Your task to perform on an android device: Open Yahoo.com Image 0: 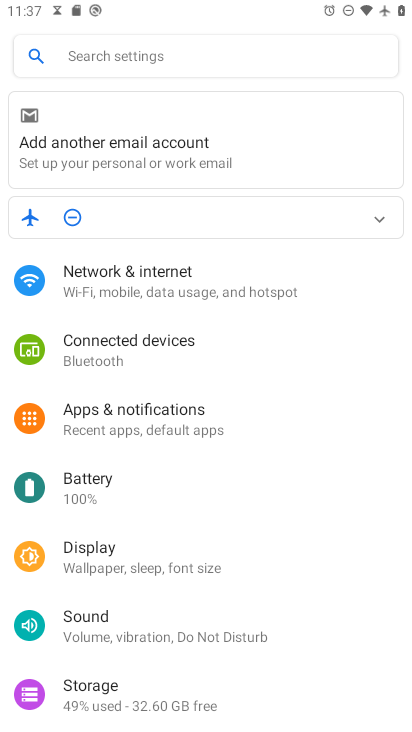
Step 0: press home button
Your task to perform on an android device: Open Yahoo.com Image 1: 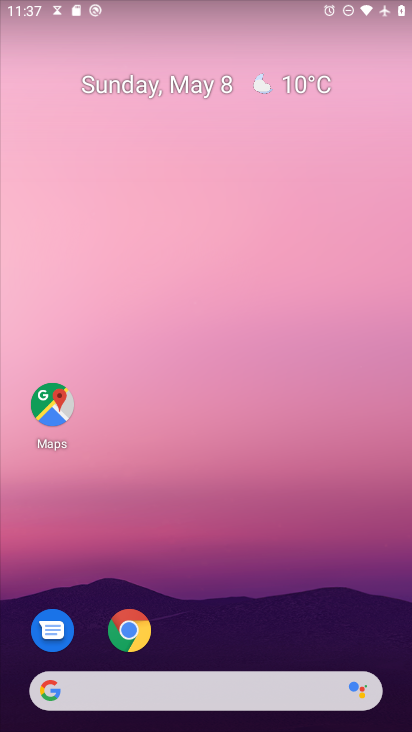
Step 1: drag from (178, 691) to (318, 20)
Your task to perform on an android device: Open Yahoo.com Image 2: 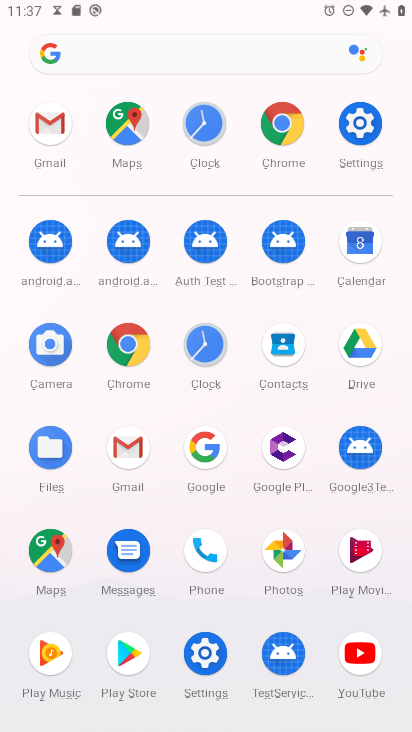
Step 2: click (293, 123)
Your task to perform on an android device: Open Yahoo.com Image 3: 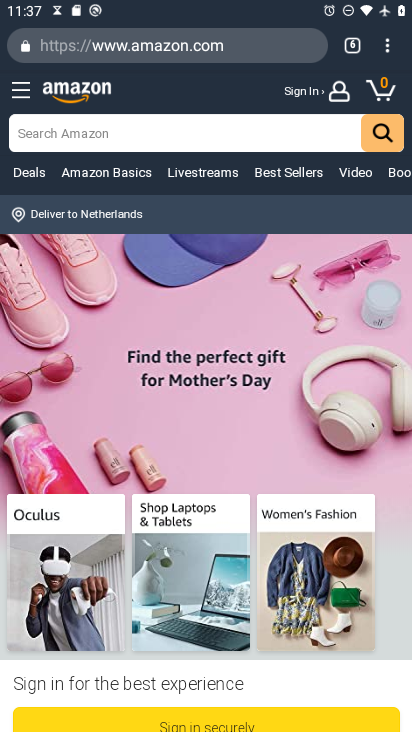
Step 3: drag from (388, 51) to (278, 93)
Your task to perform on an android device: Open Yahoo.com Image 4: 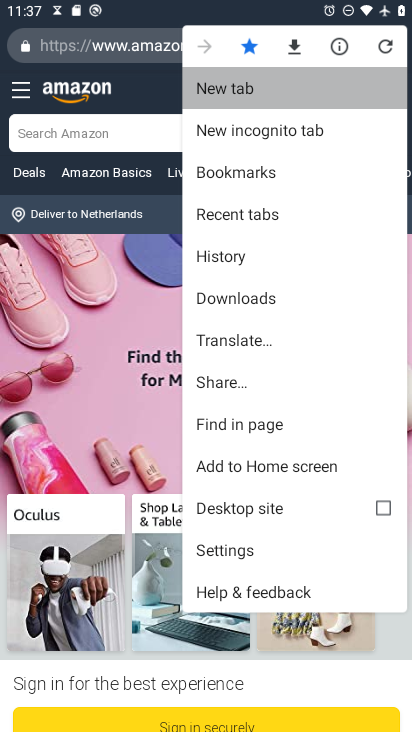
Step 4: click (278, 93)
Your task to perform on an android device: Open Yahoo.com Image 5: 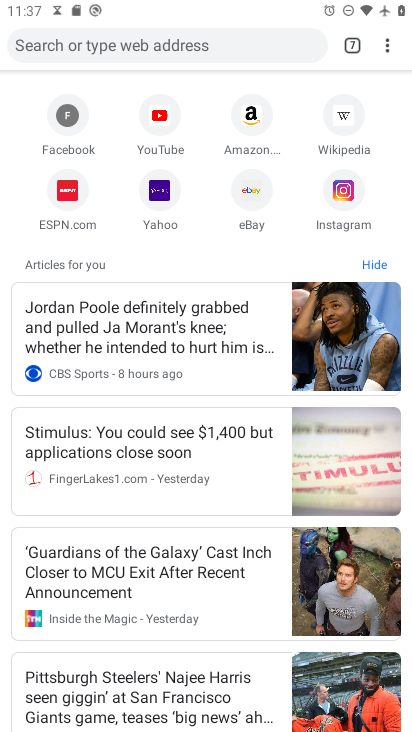
Step 5: click (163, 203)
Your task to perform on an android device: Open Yahoo.com Image 6: 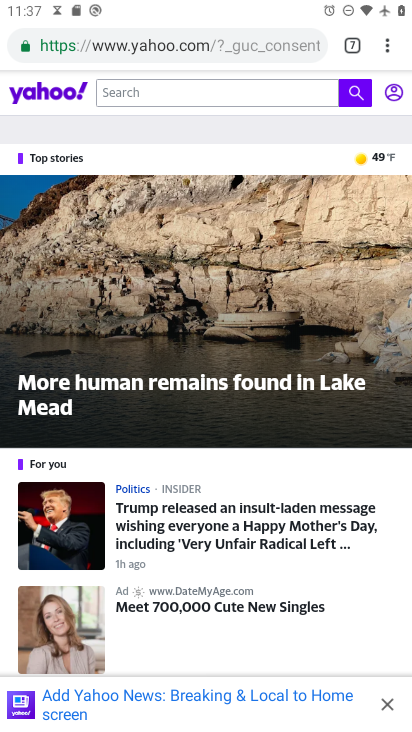
Step 6: task complete